Your task to perform on an android device: turn off wifi Image 0: 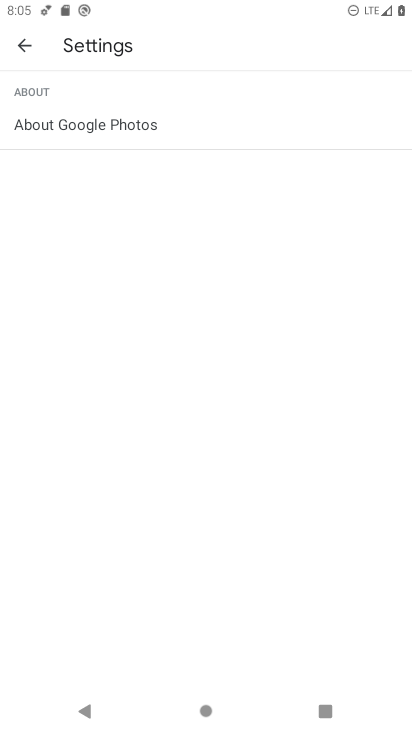
Step 0: press home button
Your task to perform on an android device: turn off wifi Image 1: 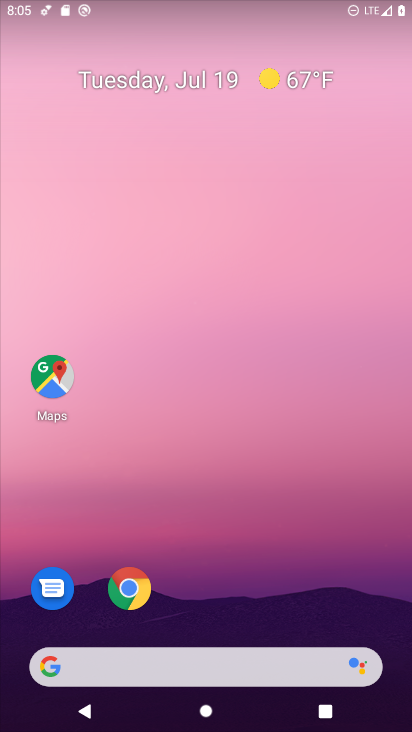
Step 1: drag from (261, 599) to (305, 116)
Your task to perform on an android device: turn off wifi Image 2: 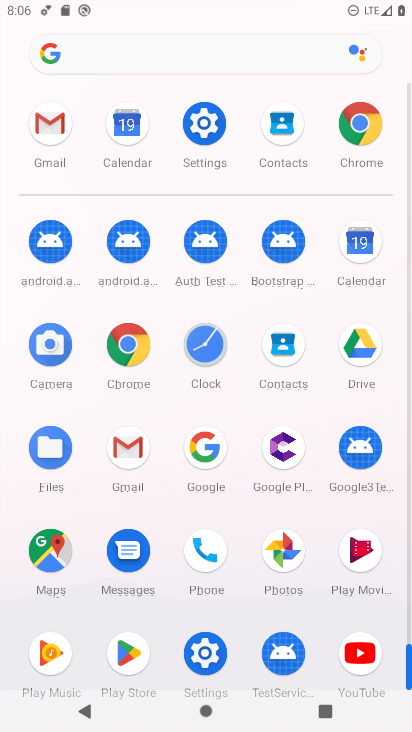
Step 2: click (209, 134)
Your task to perform on an android device: turn off wifi Image 3: 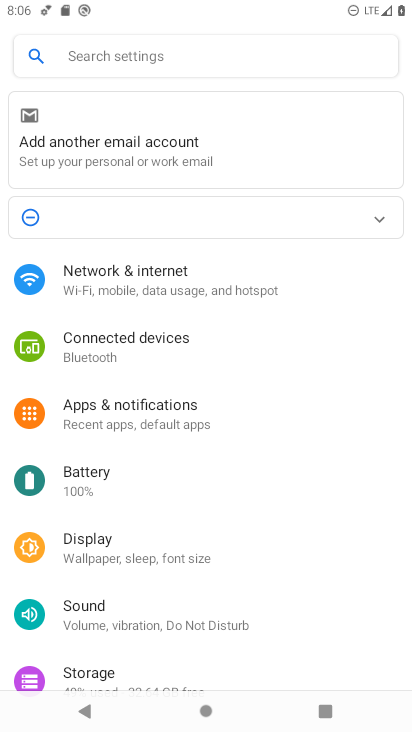
Step 3: drag from (312, 463) to (339, 327)
Your task to perform on an android device: turn off wifi Image 4: 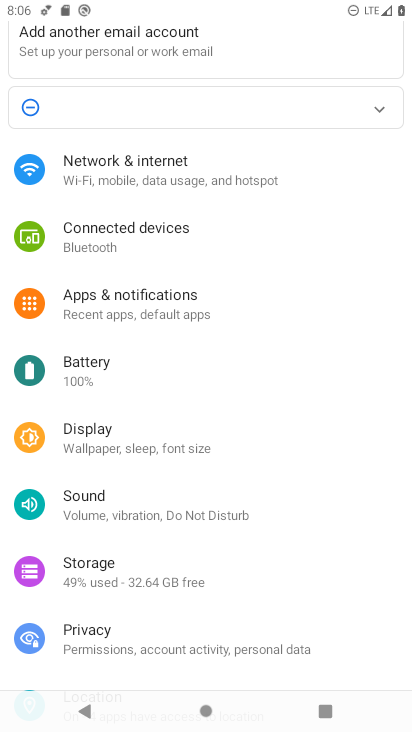
Step 4: drag from (353, 552) to (357, 432)
Your task to perform on an android device: turn off wifi Image 5: 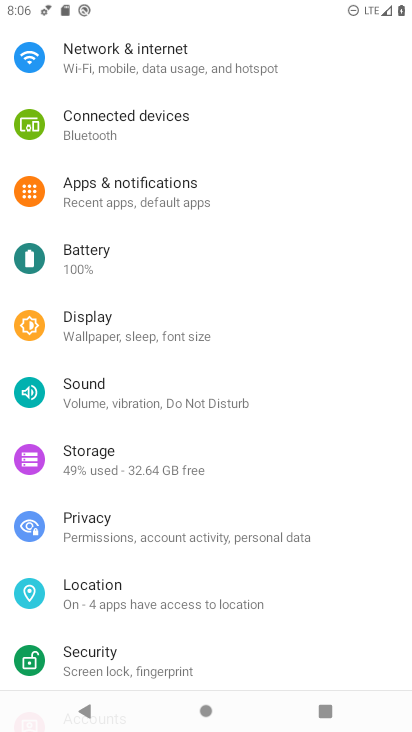
Step 5: drag from (360, 587) to (369, 396)
Your task to perform on an android device: turn off wifi Image 6: 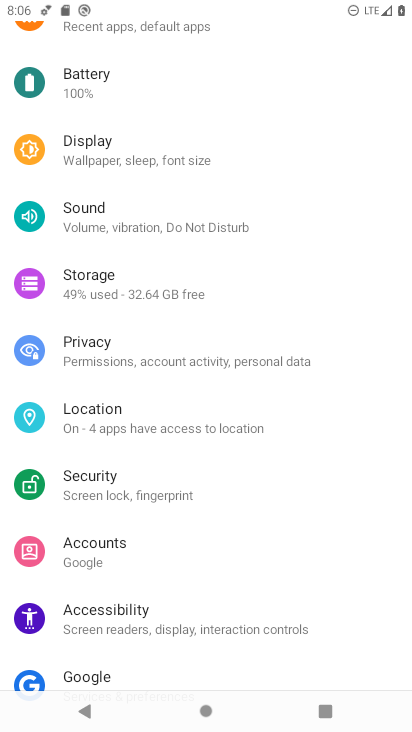
Step 6: drag from (358, 577) to (358, 382)
Your task to perform on an android device: turn off wifi Image 7: 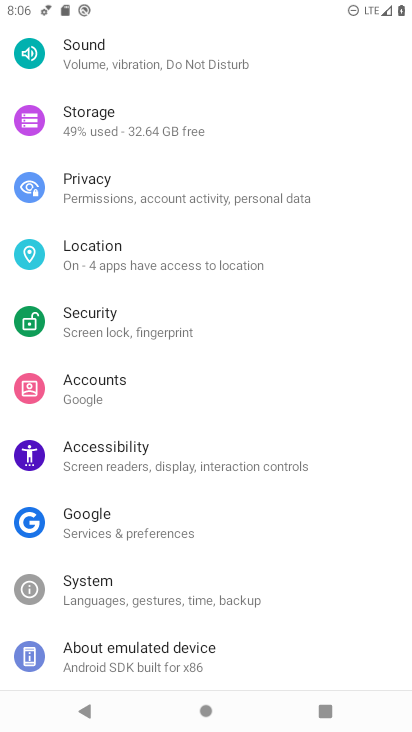
Step 7: drag from (375, 270) to (373, 419)
Your task to perform on an android device: turn off wifi Image 8: 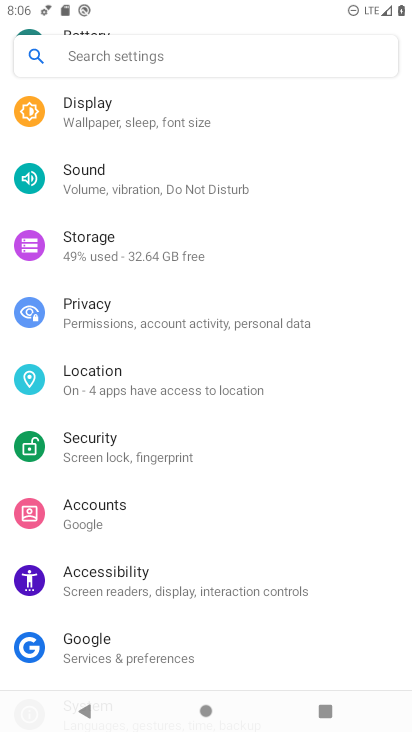
Step 8: drag from (362, 236) to (366, 419)
Your task to perform on an android device: turn off wifi Image 9: 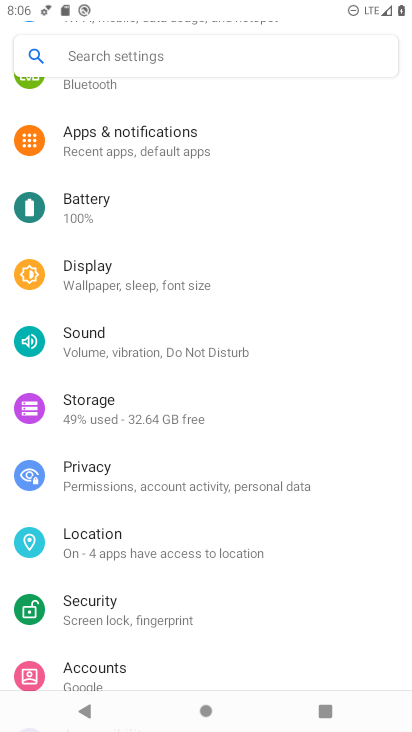
Step 9: drag from (350, 246) to (356, 428)
Your task to perform on an android device: turn off wifi Image 10: 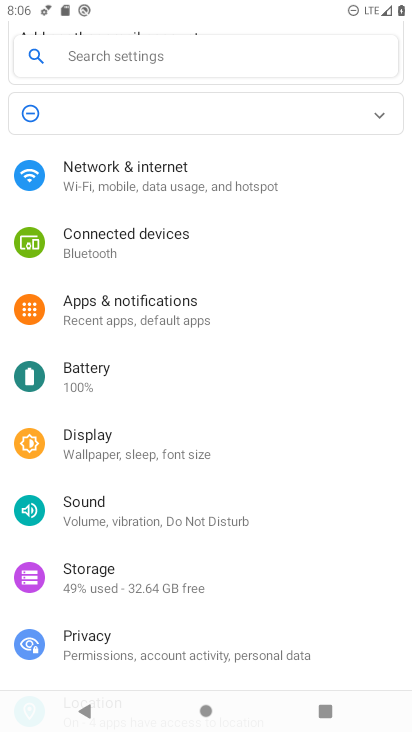
Step 10: drag from (338, 253) to (345, 393)
Your task to perform on an android device: turn off wifi Image 11: 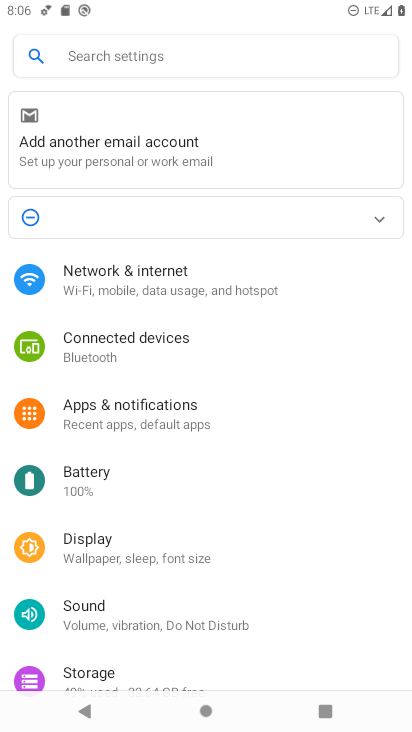
Step 11: click (272, 271)
Your task to perform on an android device: turn off wifi Image 12: 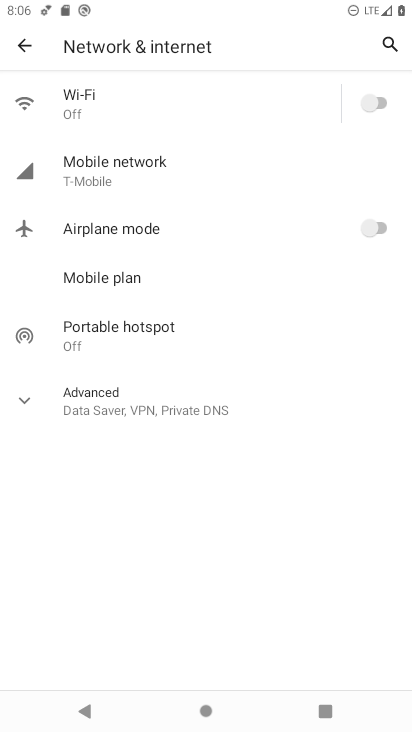
Step 12: task complete